Your task to perform on an android device: Search for razer kraken on target.com, select the first entry, add it to the cart, then select checkout. Image 0: 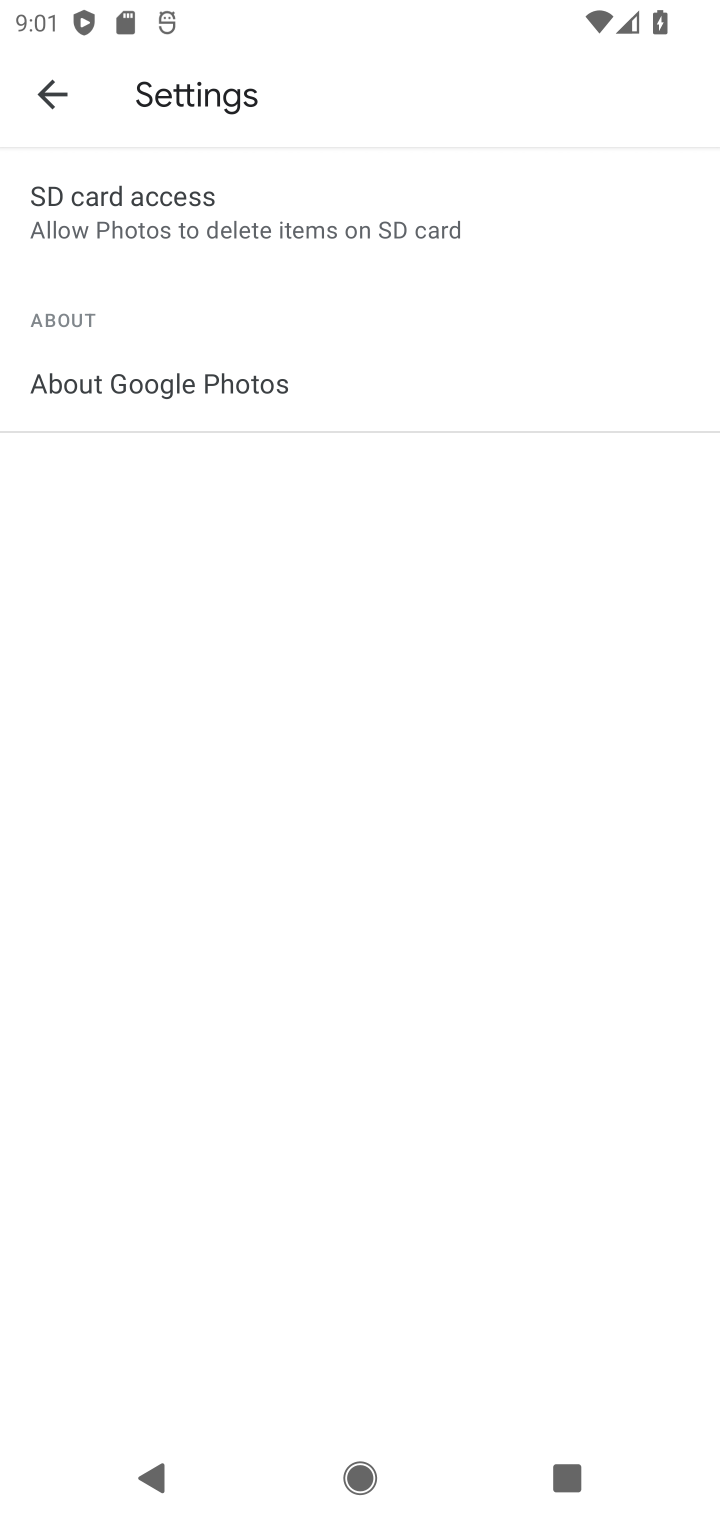
Step 0: press home button
Your task to perform on an android device: Search for razer kraken on target.com, select the first entry, add it to the cart, then select checkout. Image 1: 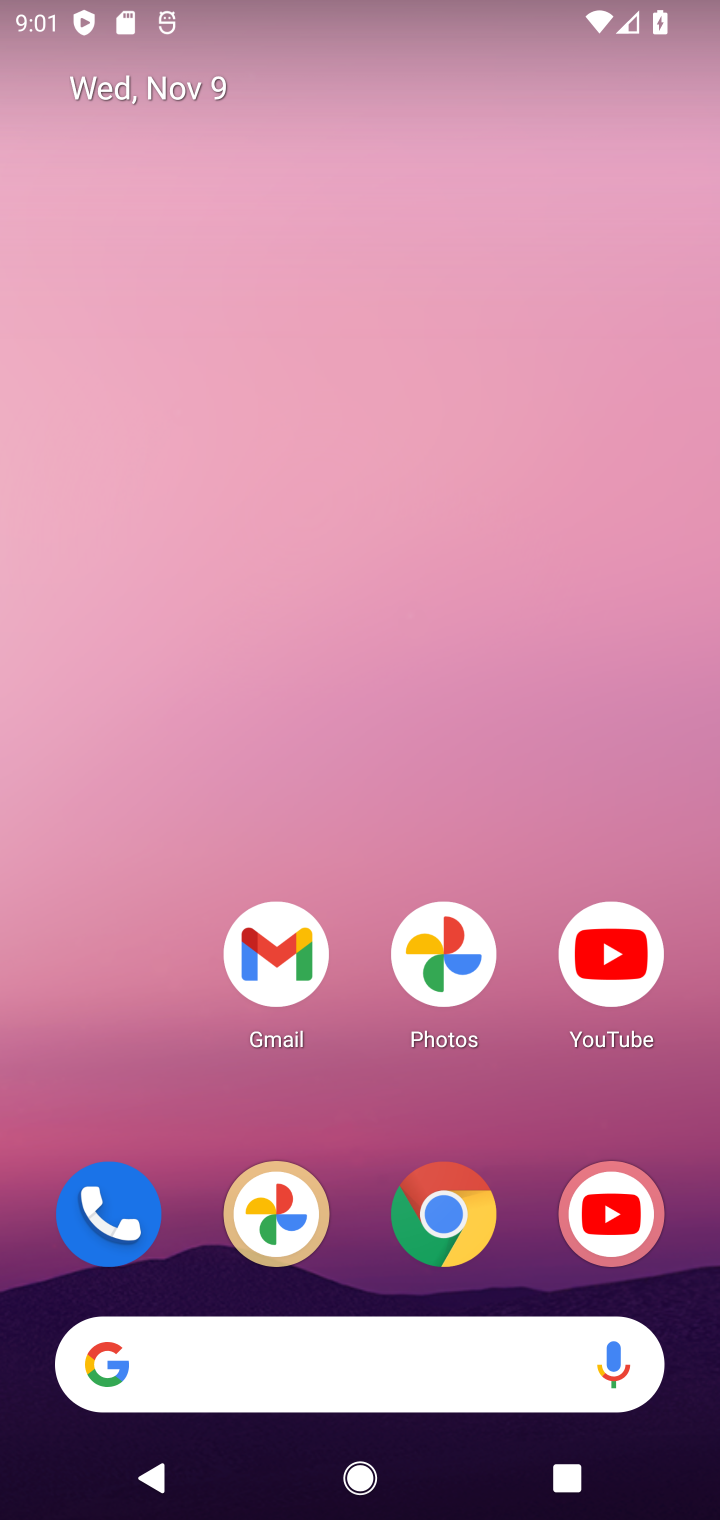
Step 1: drag from (372, 980) to (431, 72)
Your task to perform on an android device: Search for razer kraken on target.com, select the first entry, add it to the cart, then select checkout. Image 2: 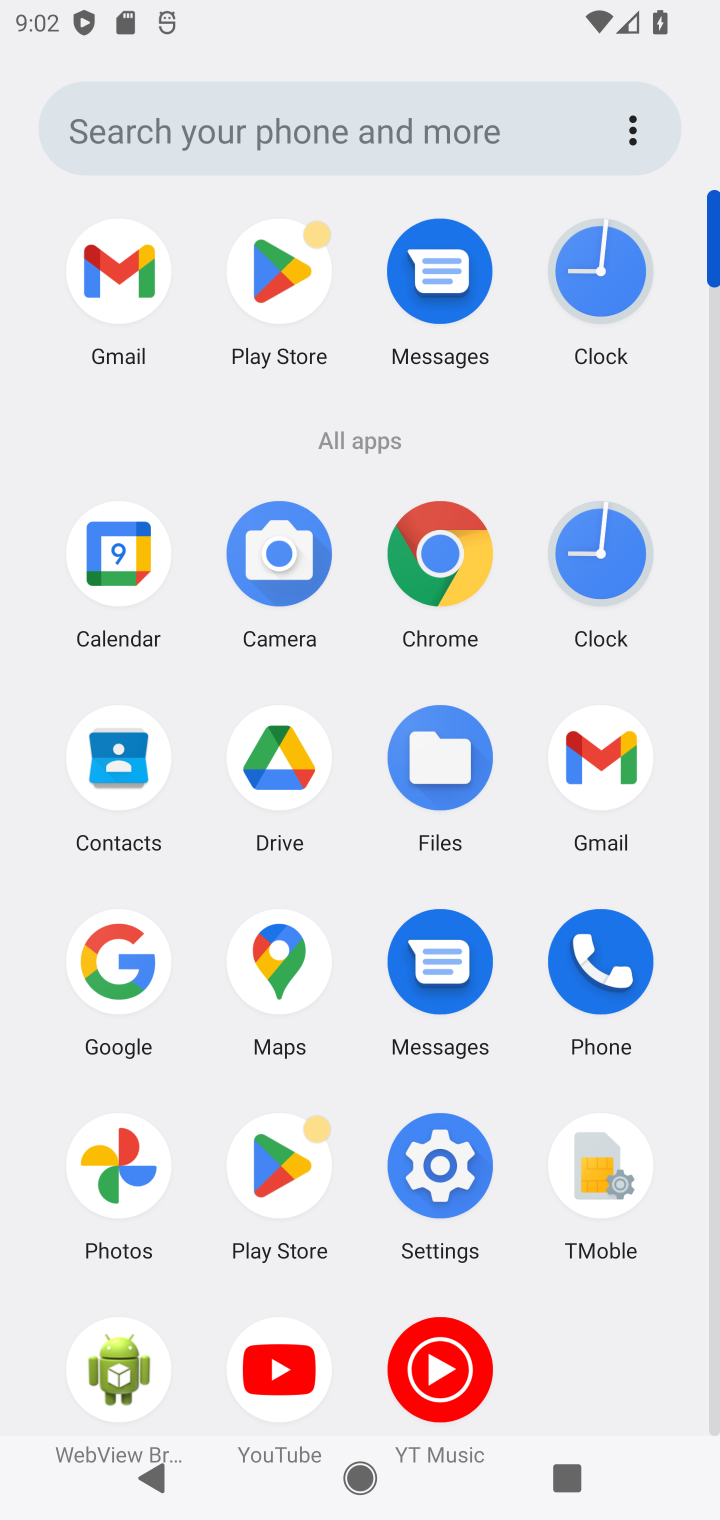
Step 2: click (443, 558)
Your task to perform on an android device: Search for razer kraken on target.com, select the first entry, add it to the cart, then select checkout. Image 3: 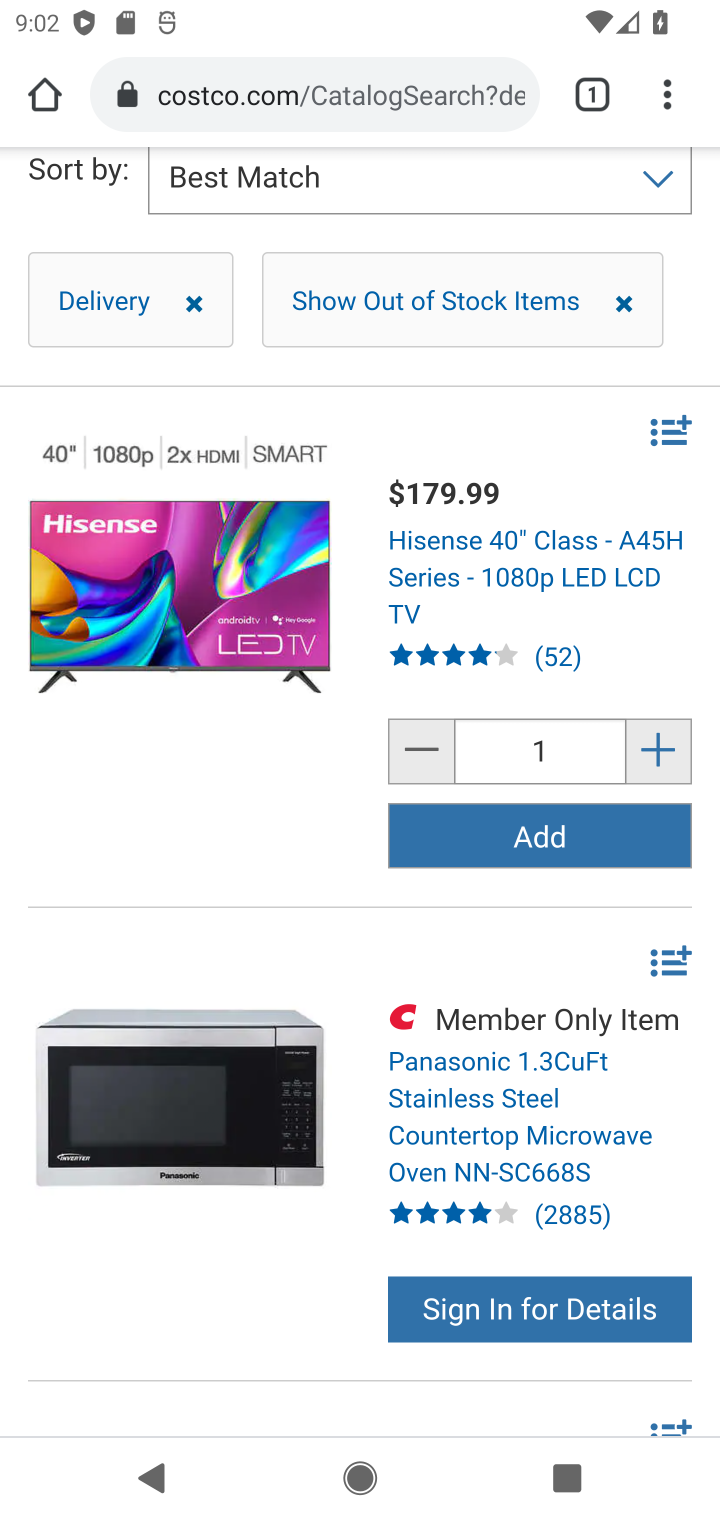
Step 3: click (254, 81)
Your task to perform on an android device: Search for razer kraken on target.com, select the first entry, add it to the cart, then select checkout. Image 4: 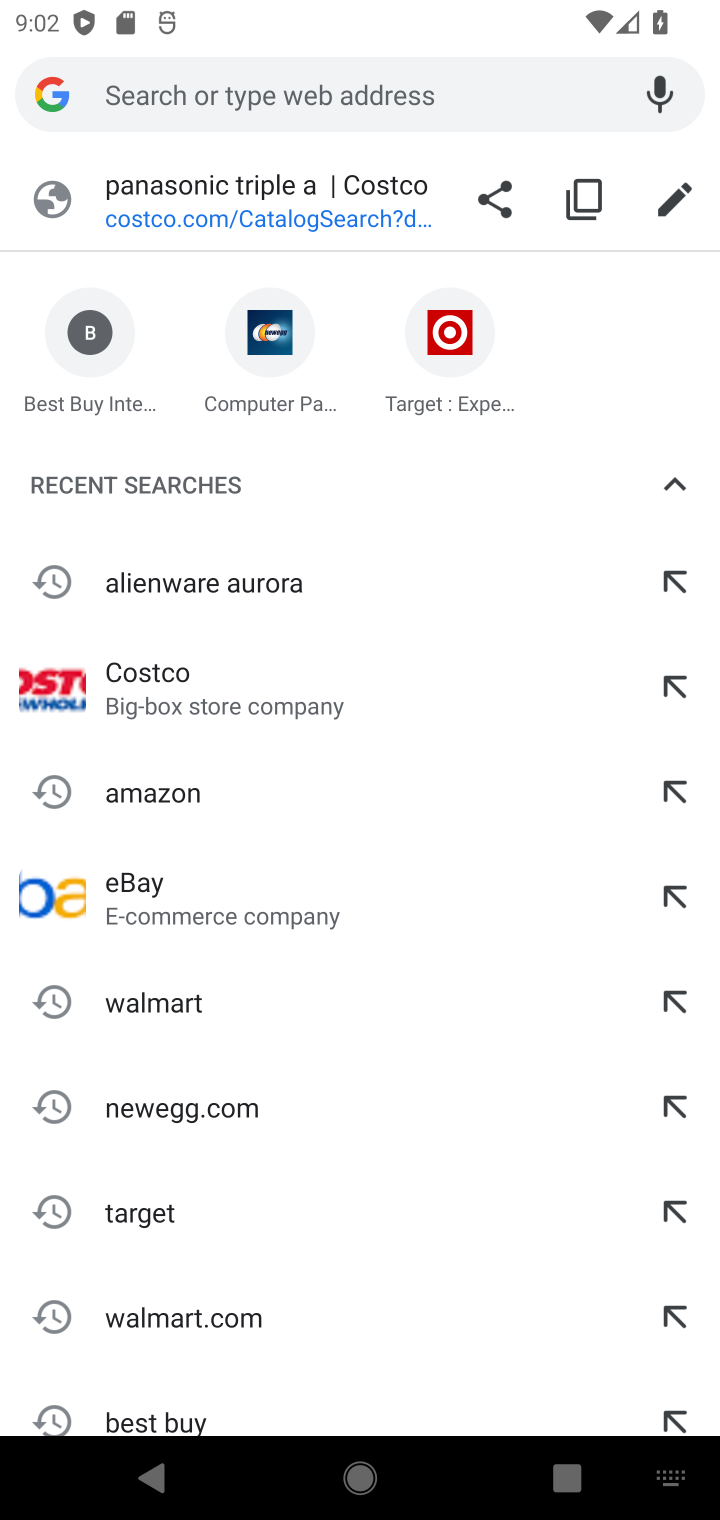
Step 4: type "target.com"
Your task to perform on an android device: Search for razer kraken on target.com, select the first entry, add it to the cart, then select checkout. Image 5: 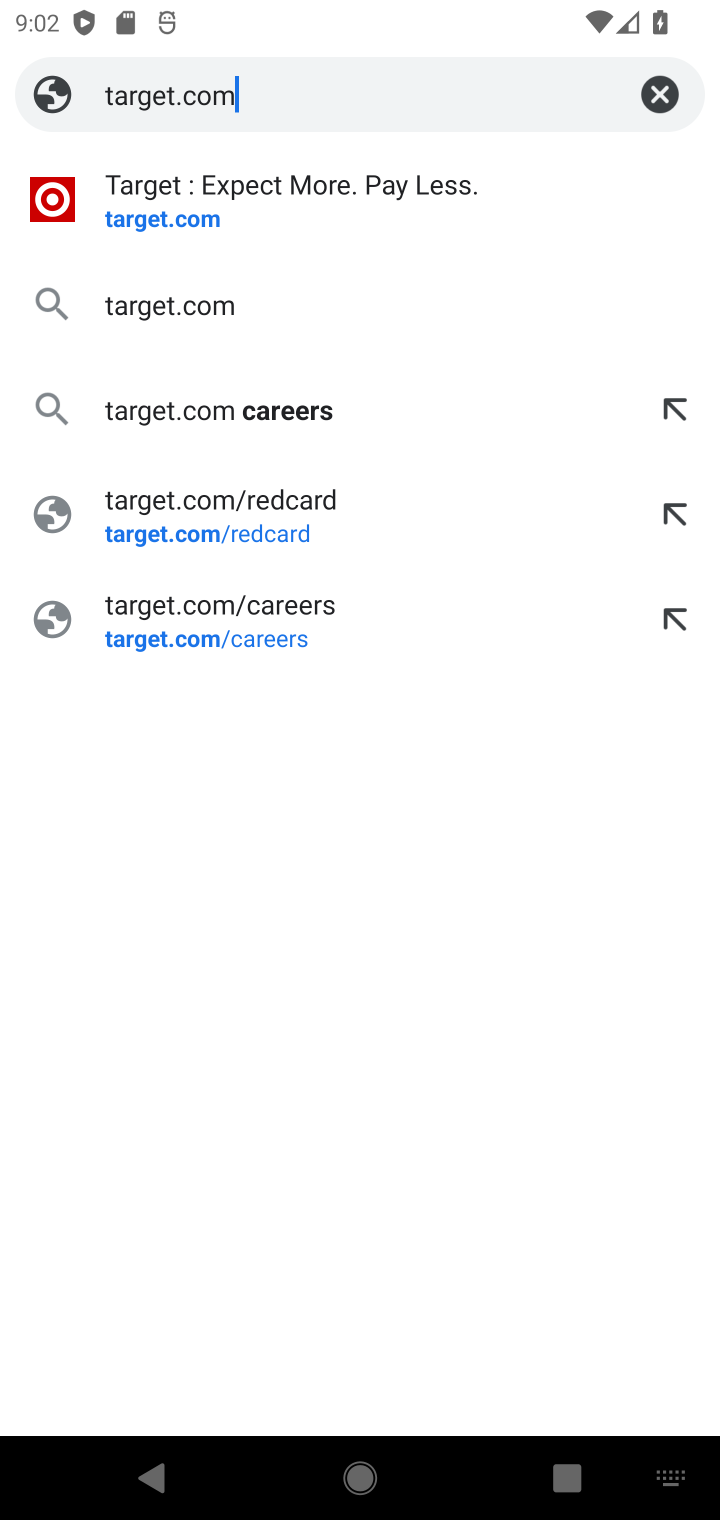
Step 5: press enter
Your task to perform on an android device: Search for razer kraken on target.com, select the first entry, add it to the cart, then select checkout. Image 6: 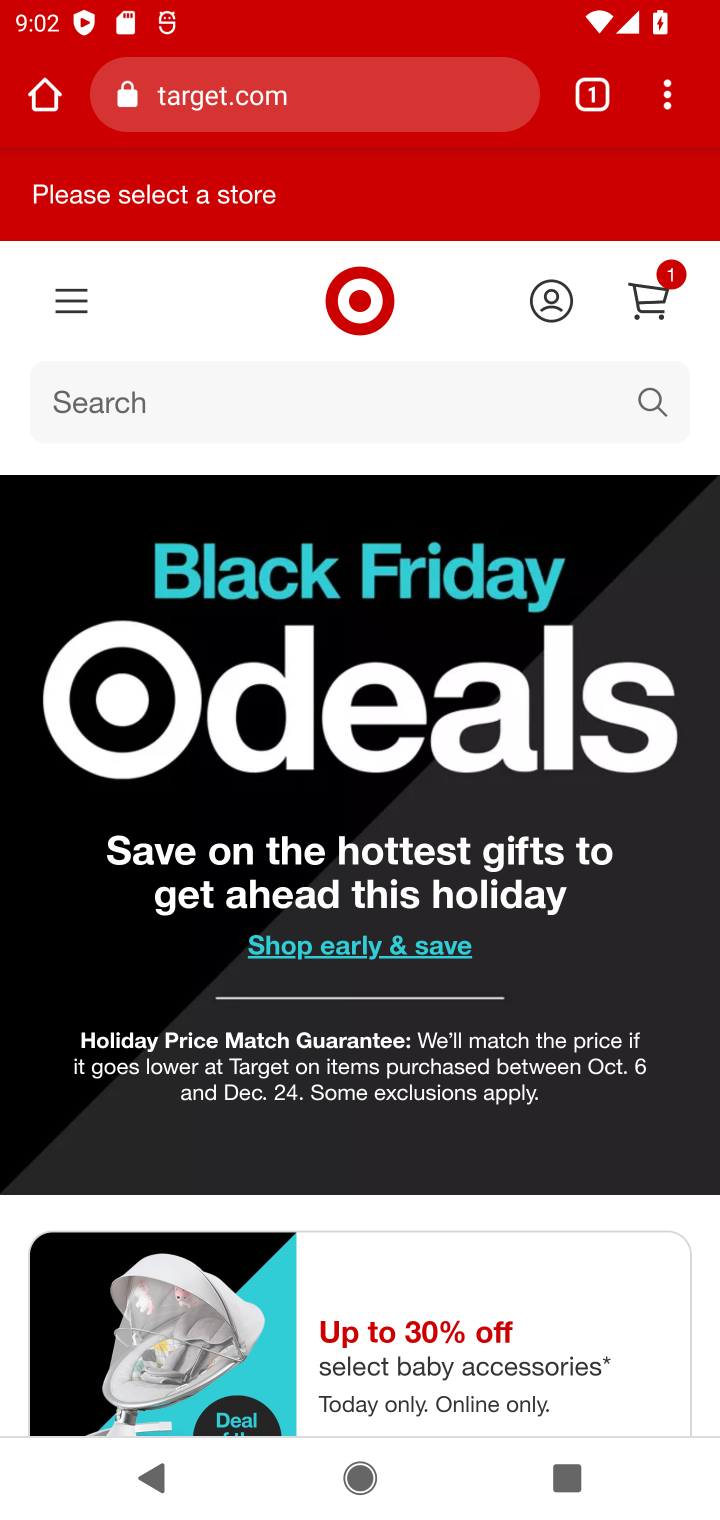
Step 6: click (252, 420)
Your task to perform on an android device: Search for razer kraken on target.com, select the first entry, add it to the cart, then select checkout. Image 7: 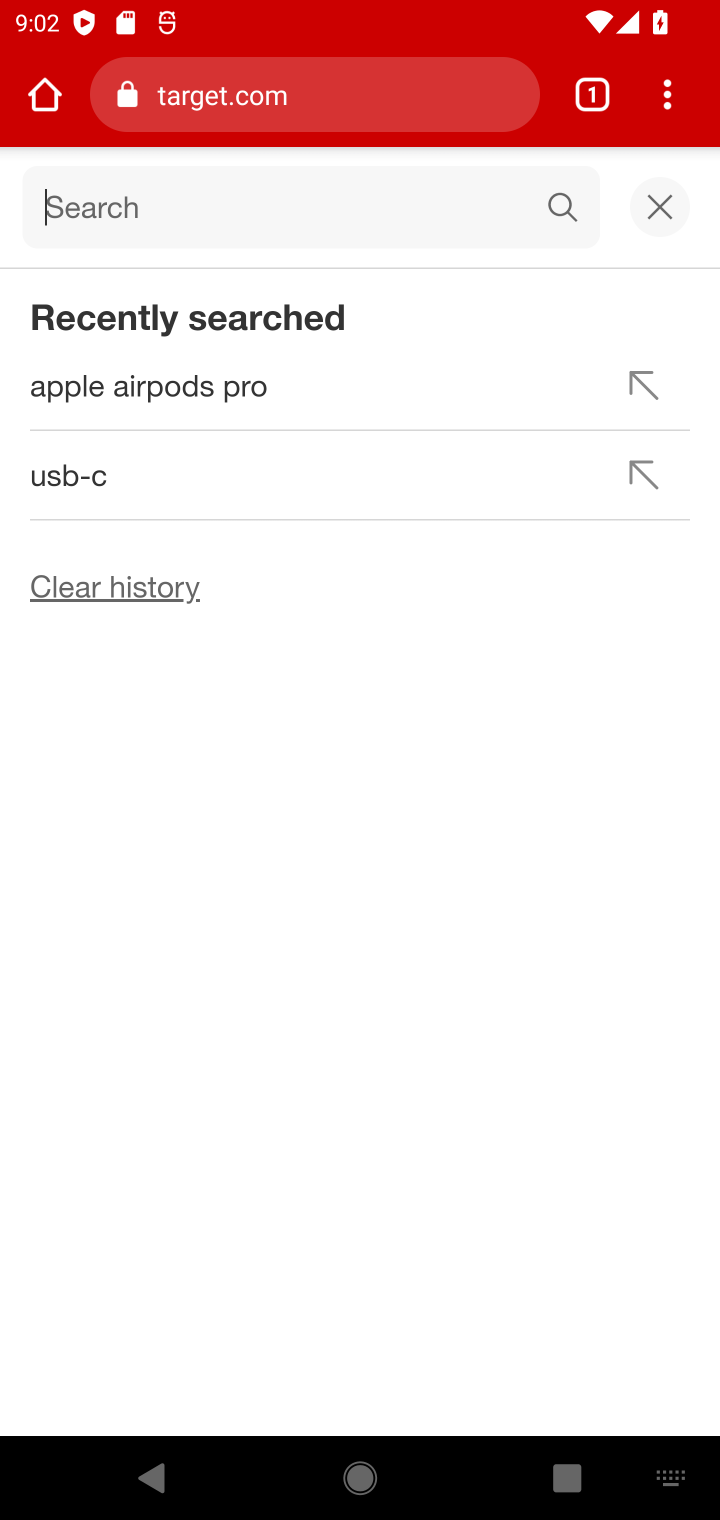
Step 7: type "razer kraken"
Your task to perform on an android device: Search for razer kraken on target.com, select the first entry, add it to the cart, then select checkout. Image 8: 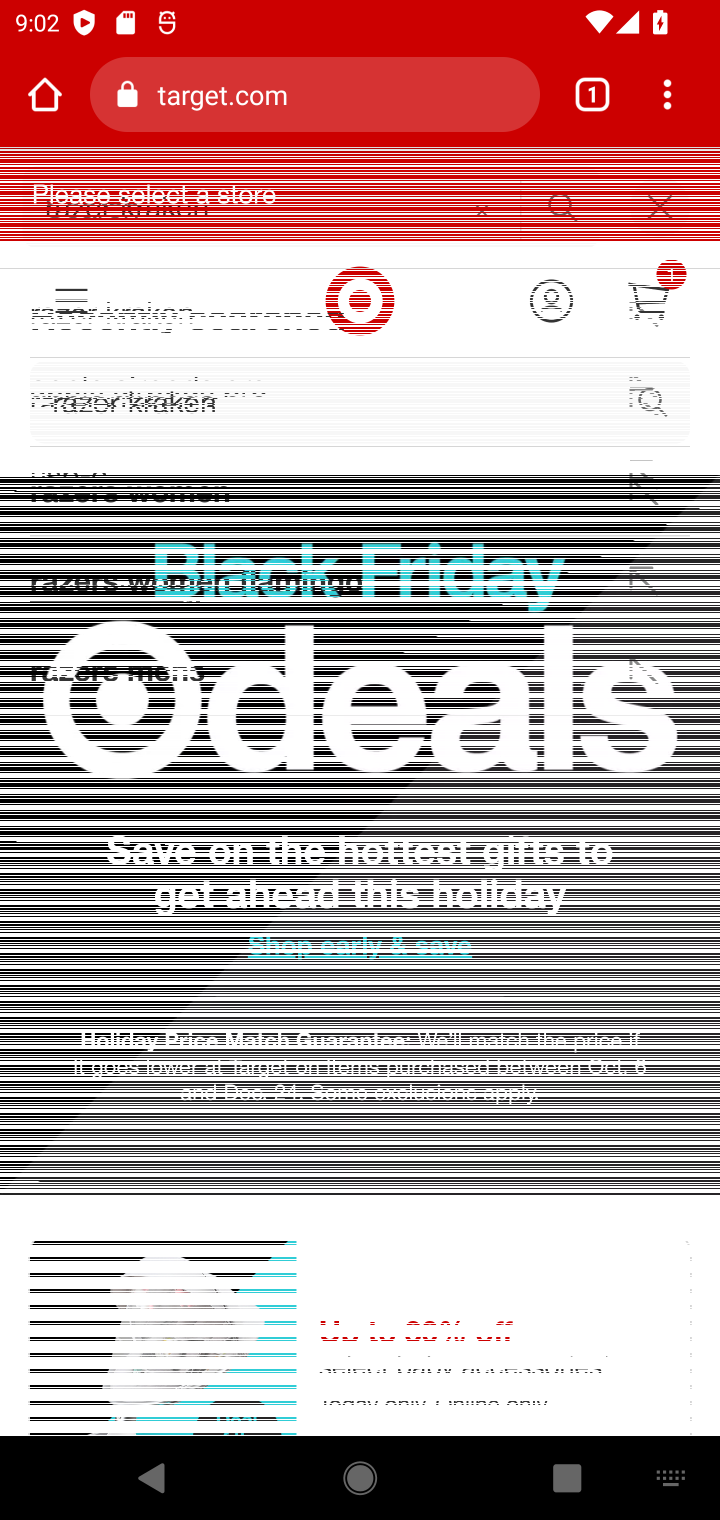
Step 8: press enter
Your task to perform on an android device: Search for razer kraken on target.com, select the first entry, add it to the cart, then select checkout. Image 9: 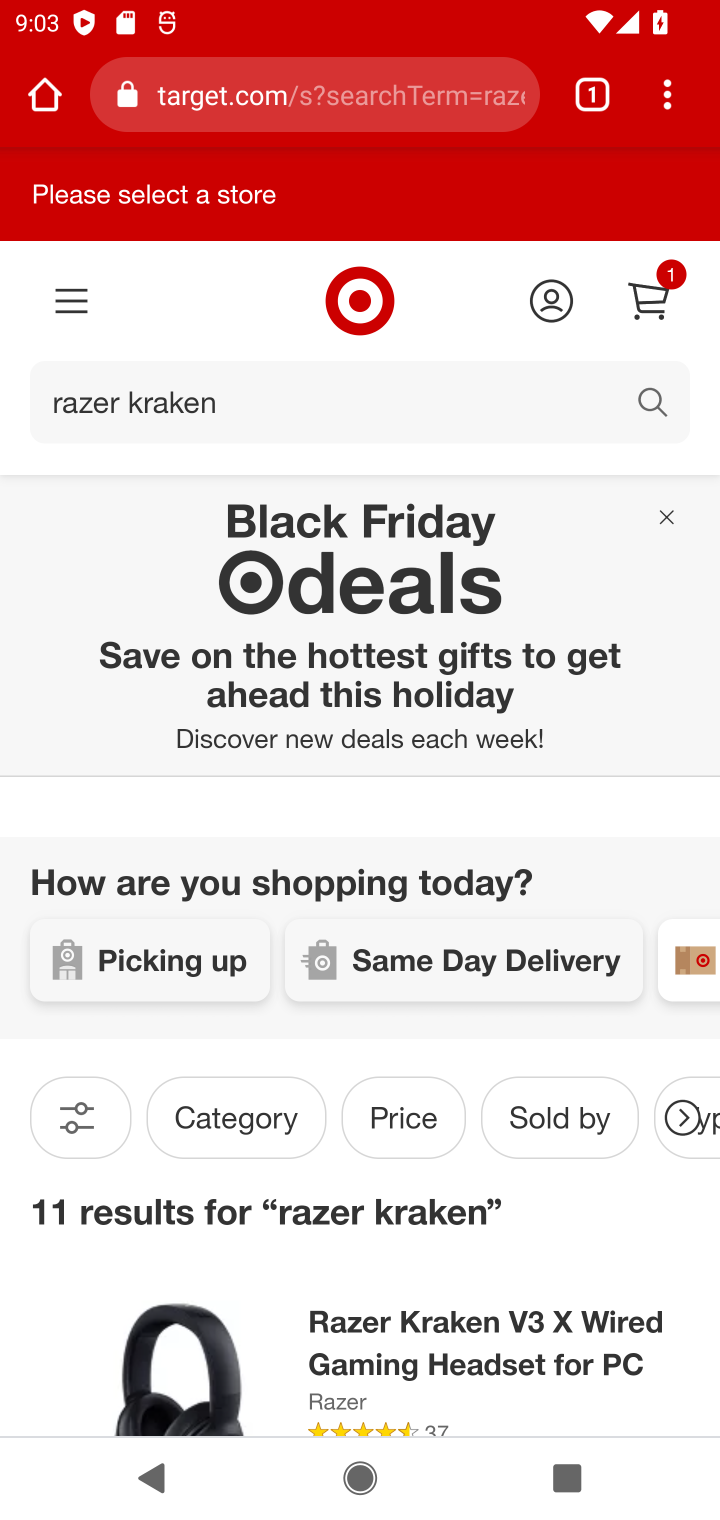
Step 9: drag from (525, 764) to (560, 585)
Your task to perform on an android device: Search for razer kraken on target.com, select the first entry, add it to the cart, then select checkout. Image 10: 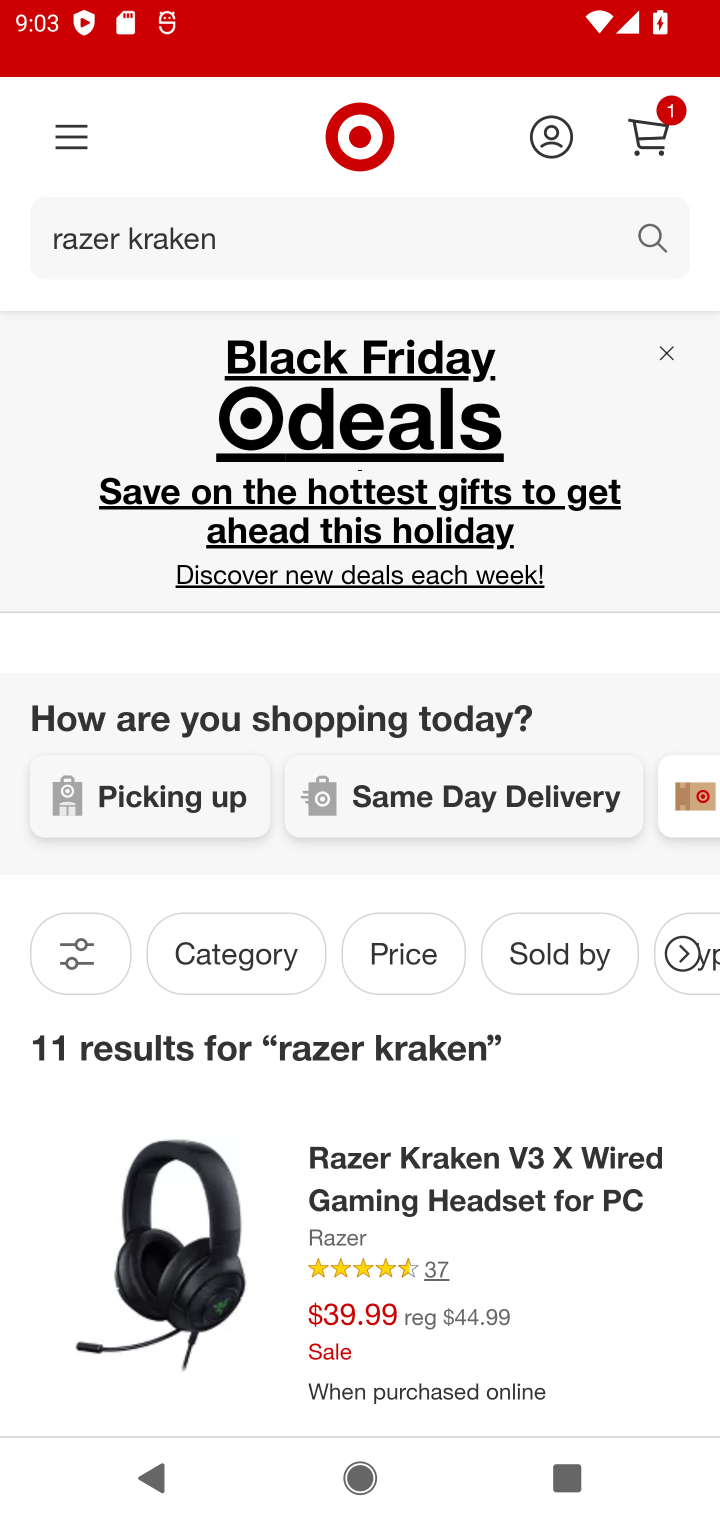
Step 10: drag from (429, 1126) to (469, 564)
Your task to perform on an android device: Search for razer kraken on target.com, select the first entry, add it to the cart, then select checkout. Image 11: 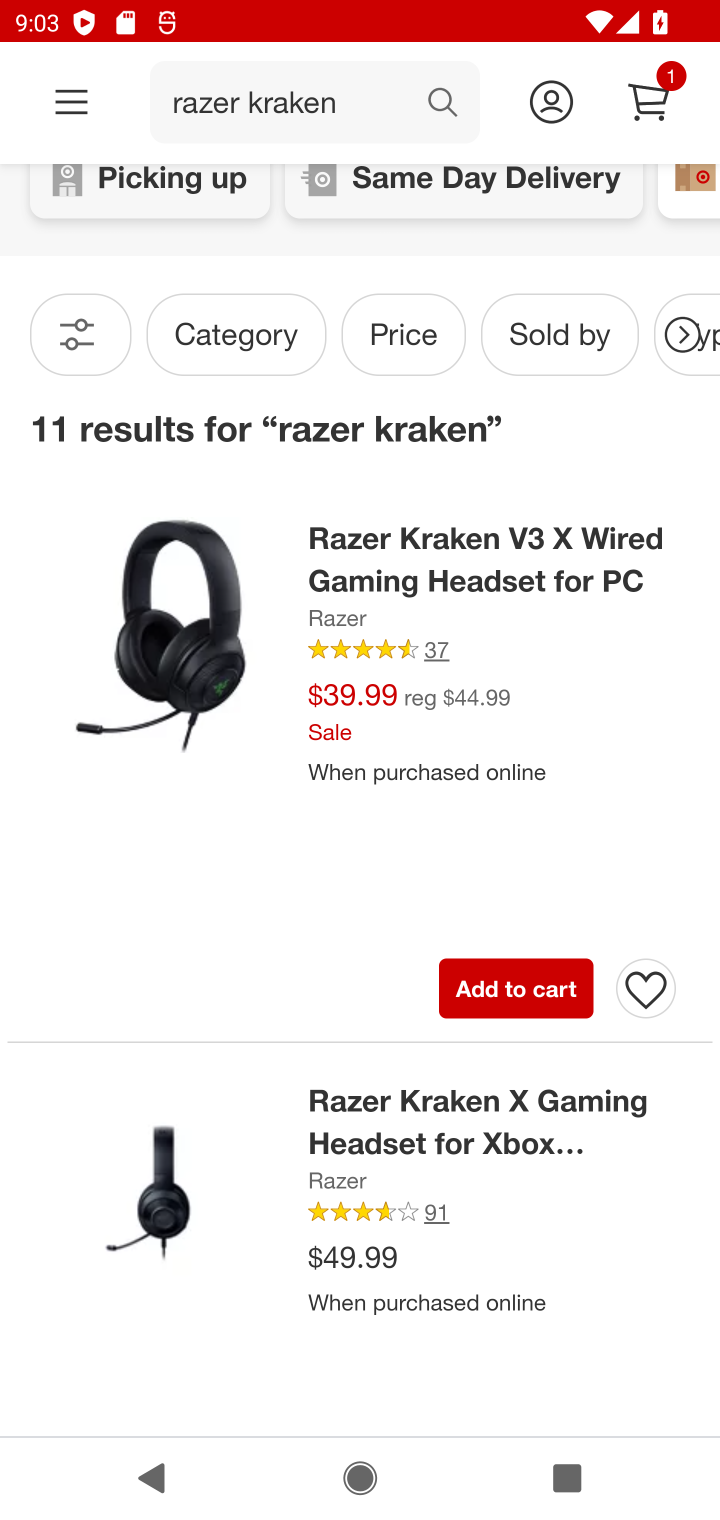
Step 11: click (541, 976)
Your task to perform on an android device: Search for razer kraken on target.com, select the first entry, add it to the cart, then select checkout. Image 12: 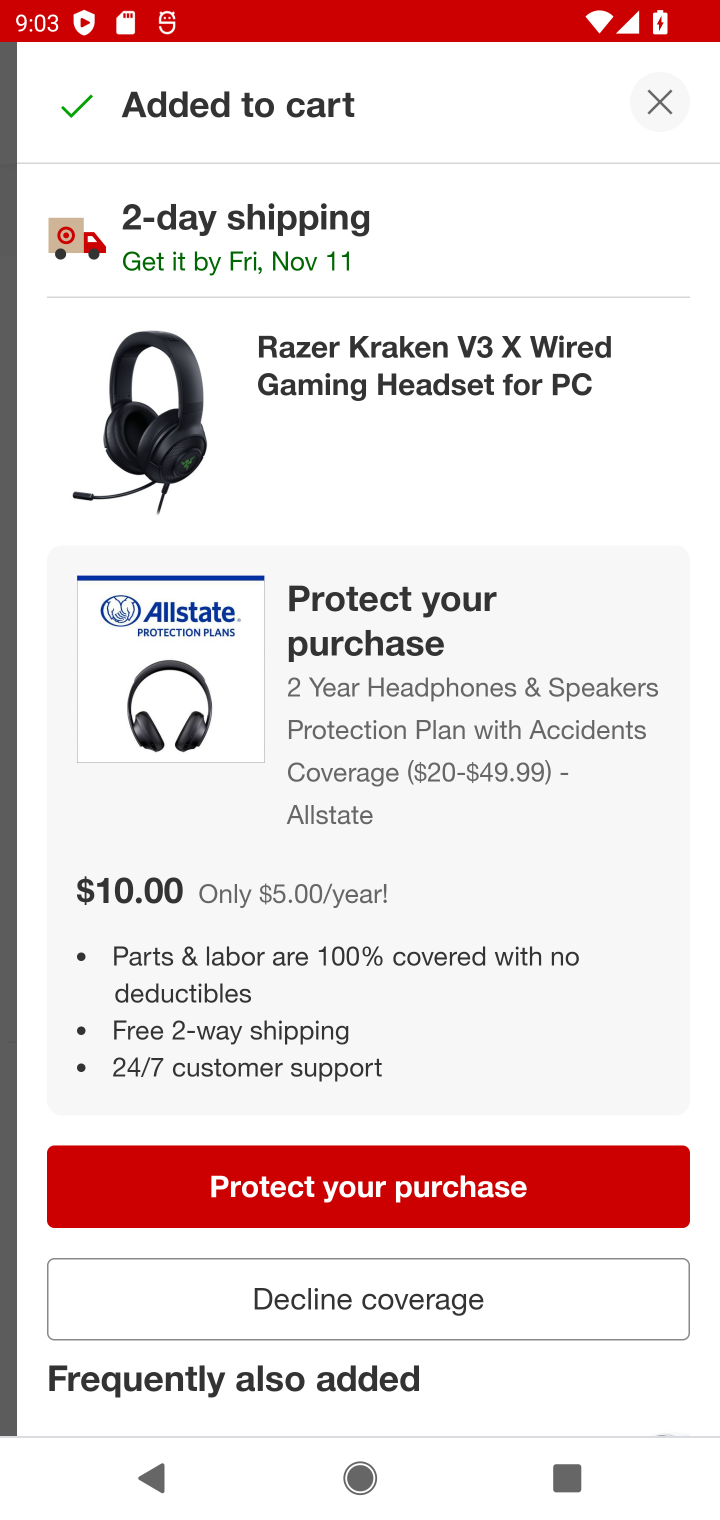
Step 12: click (646, 100)
Your task to perform on an android device: Search for razer kraken on target.com, select the first entry, add it to the cart, then select checkout. Image 13: 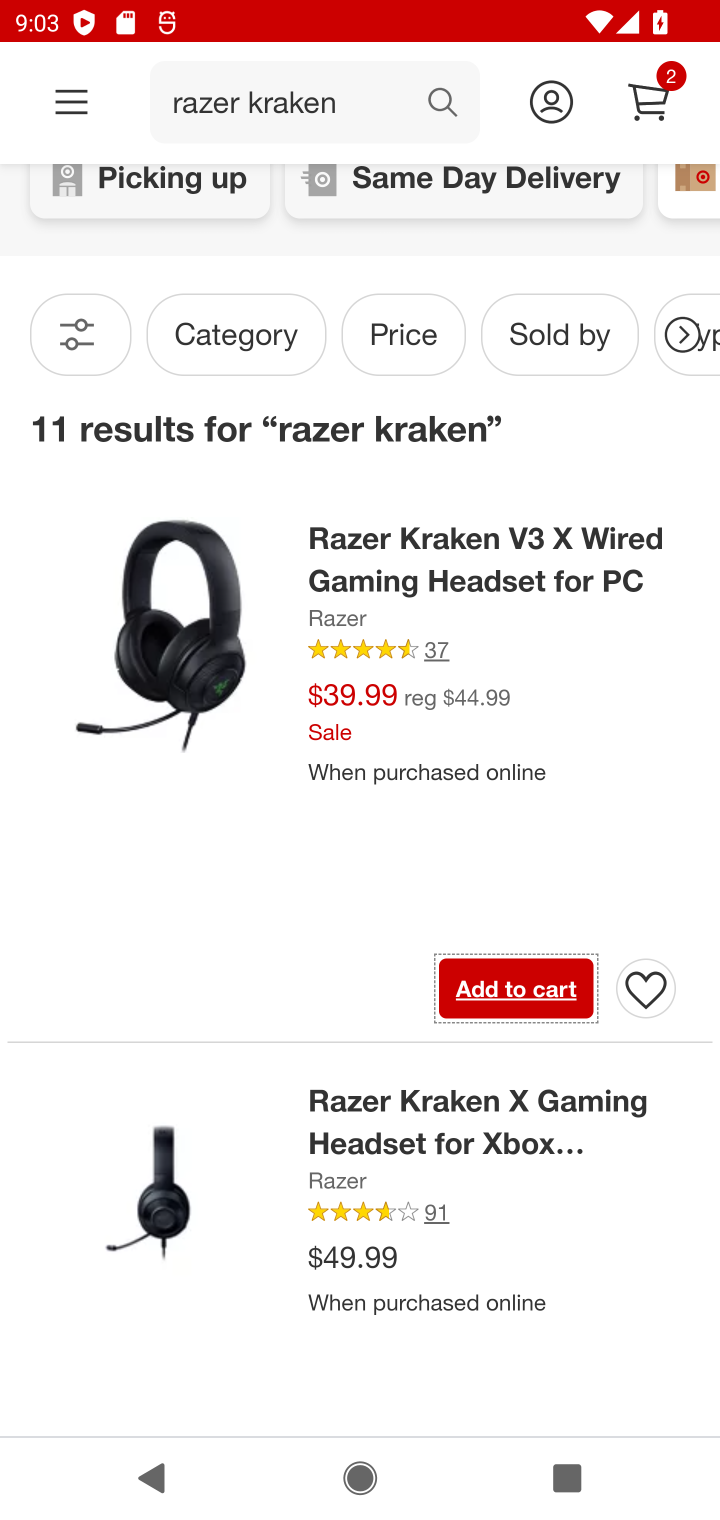
Step 13: click (654, 106)
Your task to perform on an android device: Search for razer kraken on target.com, select the first entry, add it to the cart, then select checkout. Image 14: 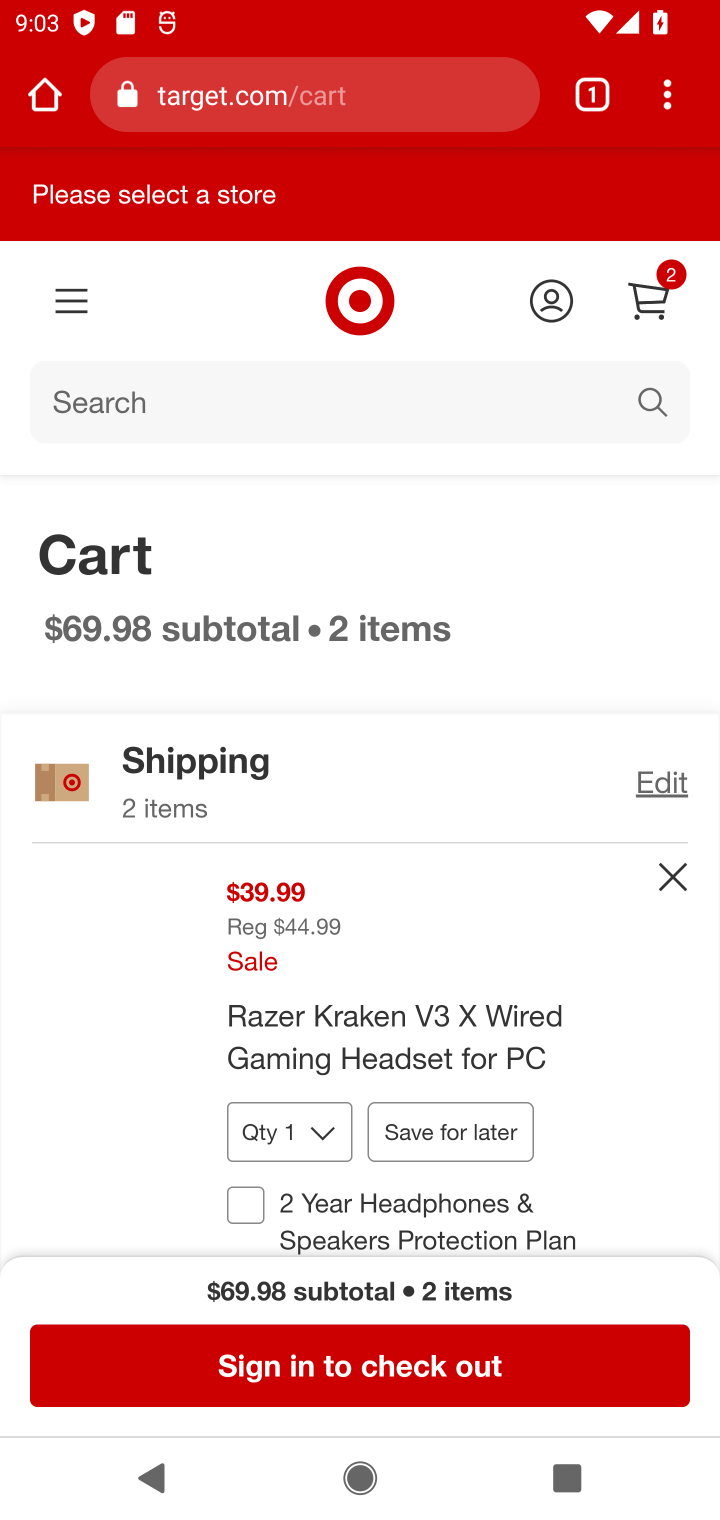
Step 14: click (466, 1367)
Your task to perform on an android device: Search for razer kraken on target.com, select the first entry, add it to the cart, then select checkout. Image 15: 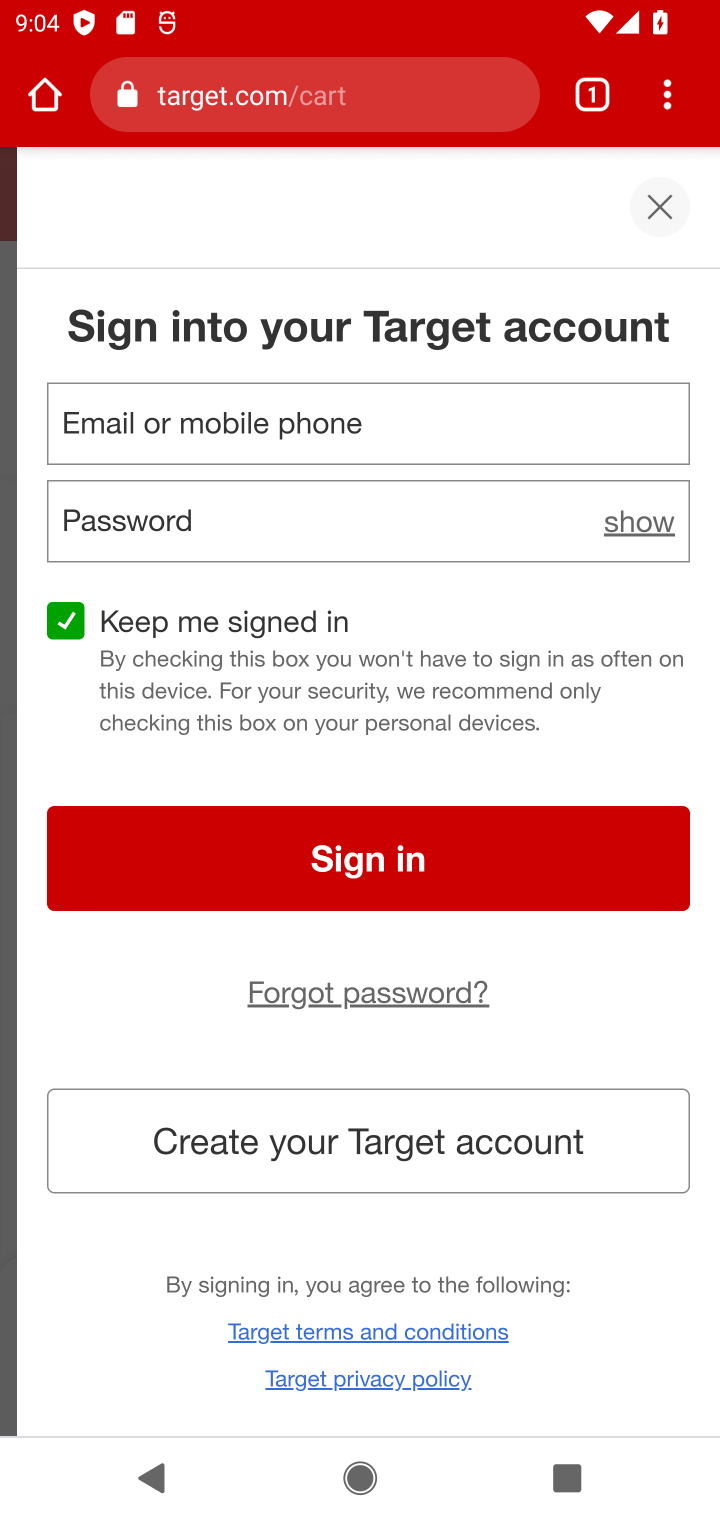
Step 15: task complete